Your task to perform on an android device: Go to Android settings Image 0: 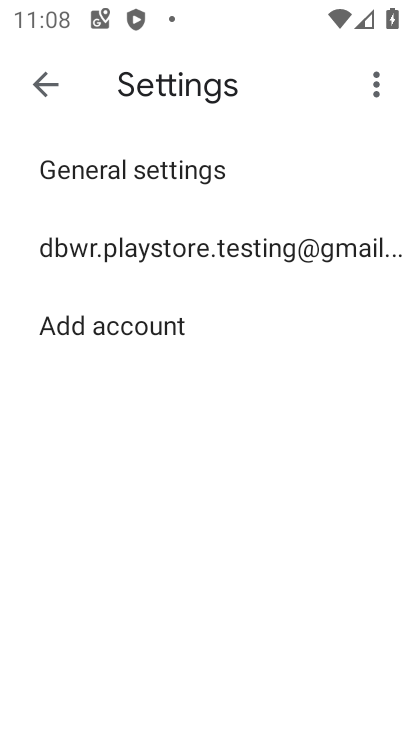
Step 0: press home button
Your task to perform on an android device: Go to Android settings Image 1: 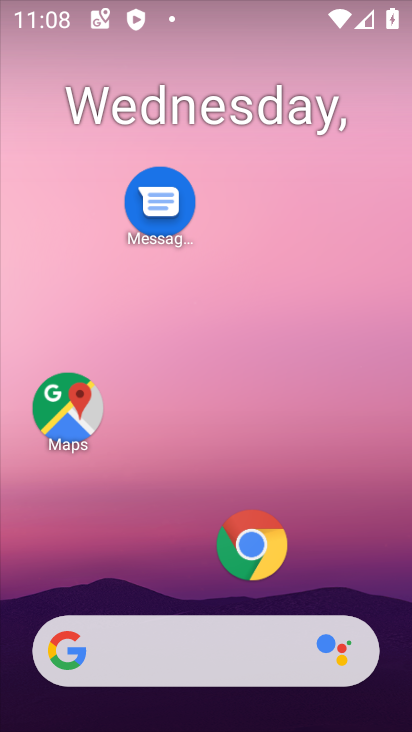
Step 1: drag from (200, 590) to (234, 168)
Your task to perform on an android device: Go to Android settings Image 2: 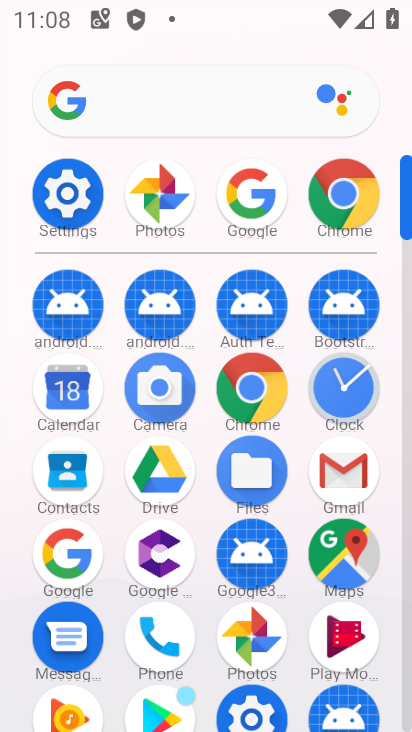
Step 2: click (38, 178)
Your task to perform on an android device: Go to Android settings Image 3: 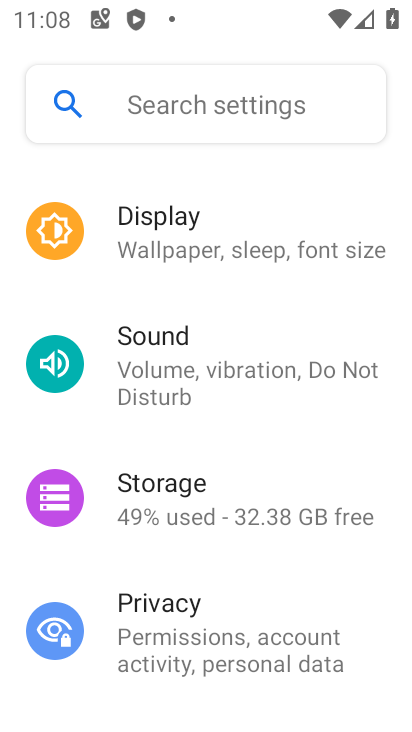
Step 3: task complete